Your task to perform on an android device: turn on bluetooth scan Image 0: 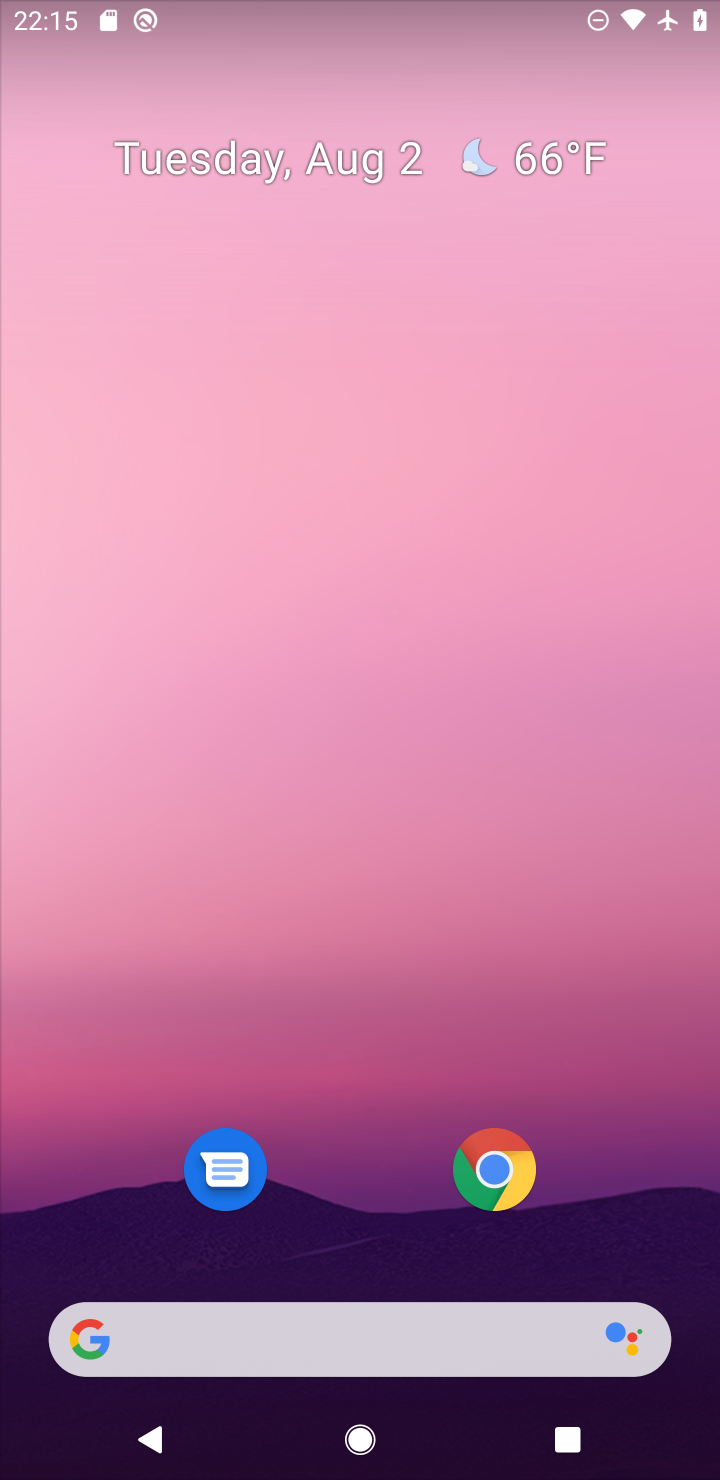
Step 0: drag from (358, 963) to (265, 65)
Your task to perform on an android device: turn on bluetooth scan Image 1: 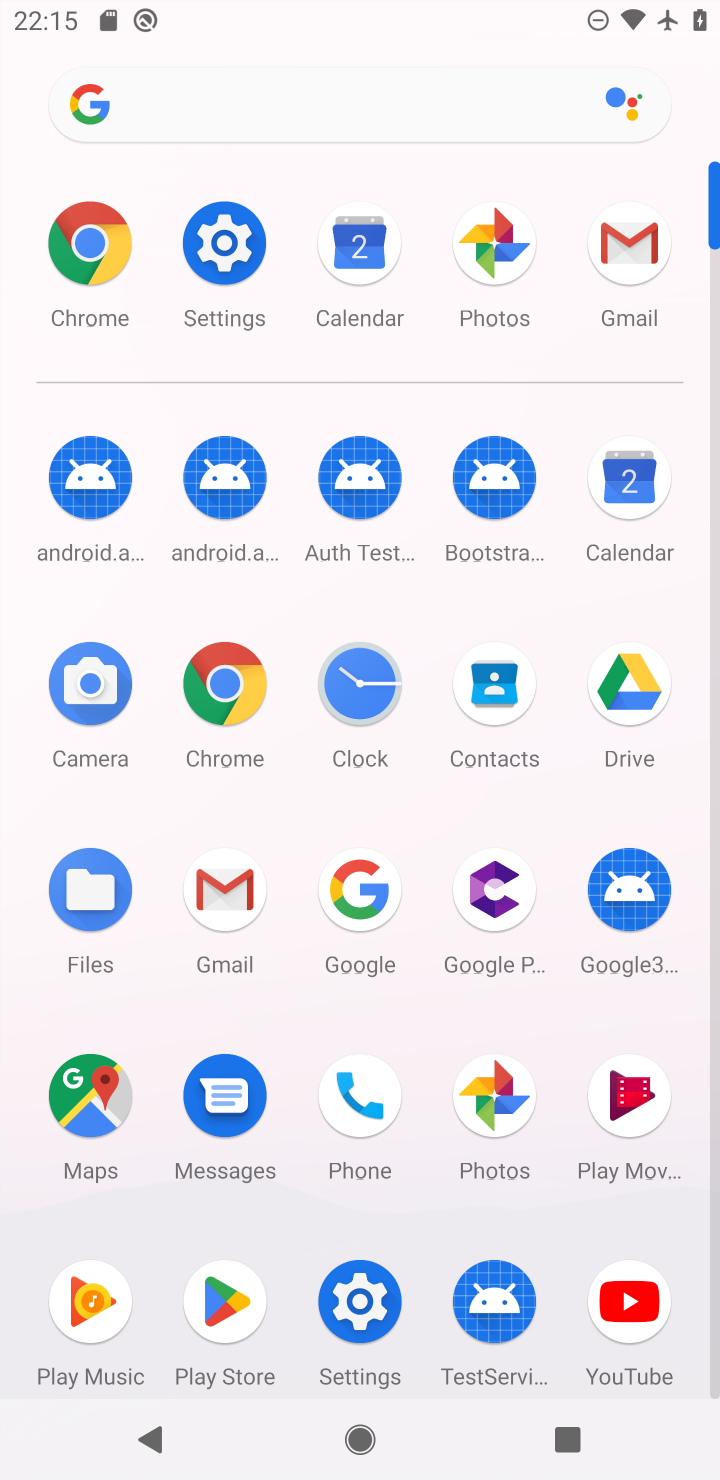
Step 1: click (231, 245)
Your task to perform on an android device: turn on bluetooth scan Image 2: 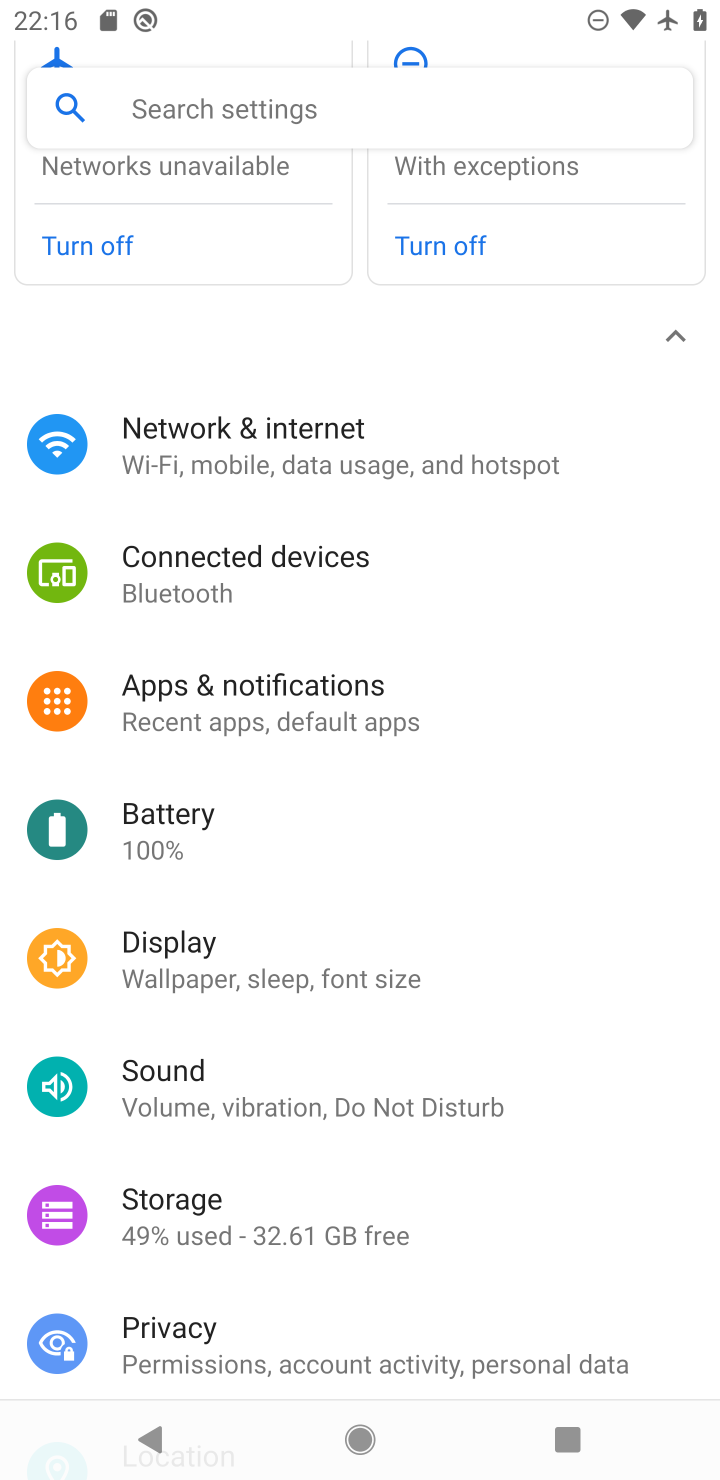
Step 2: drag from (217, 1214) to (217, 643)
Your task to perform on an android device: turn on bluetooth scan Image 3: 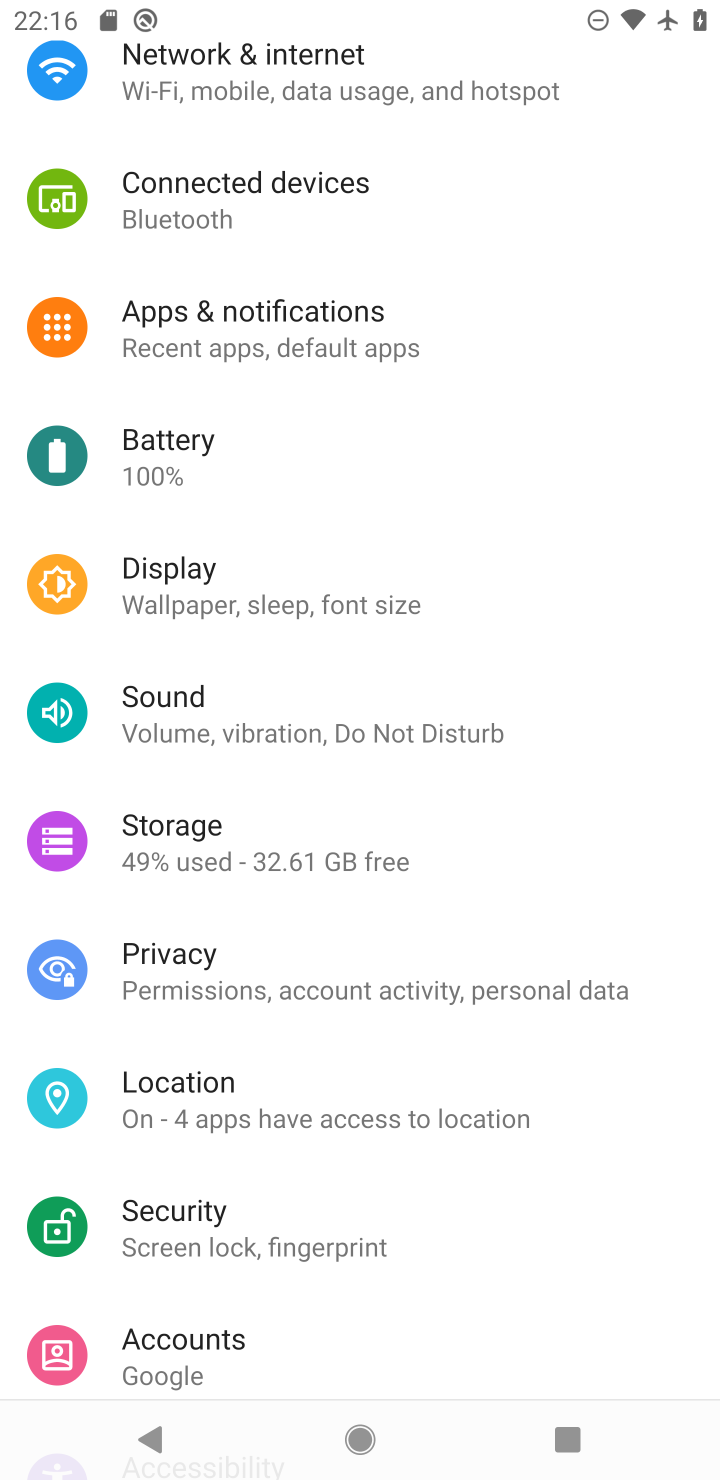
Step 3: click (172, 1068)
Your task to perform on an android device: turn on bluetooth scan Image 4: 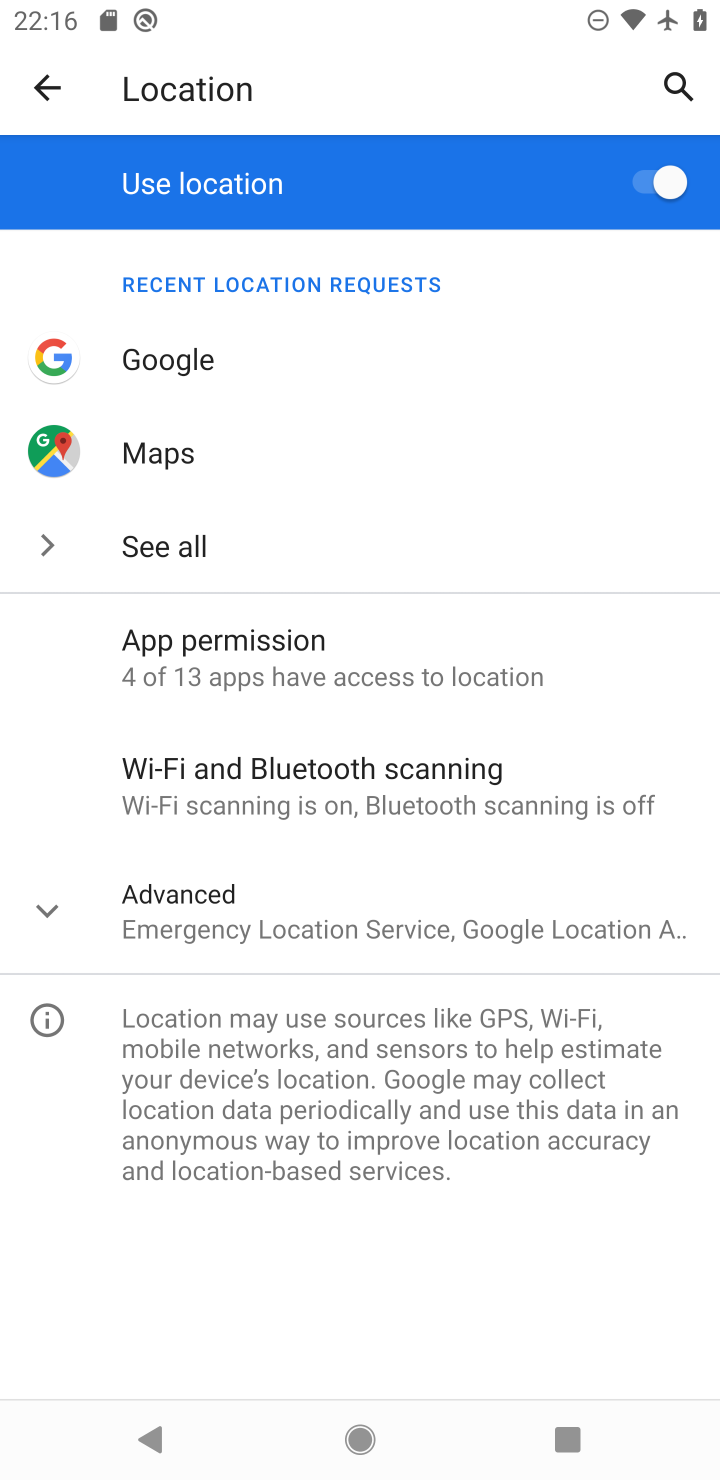
Step 4: task complete